Your task to perform on an android device: Search for Mexican restaurants on Maps Image 0: 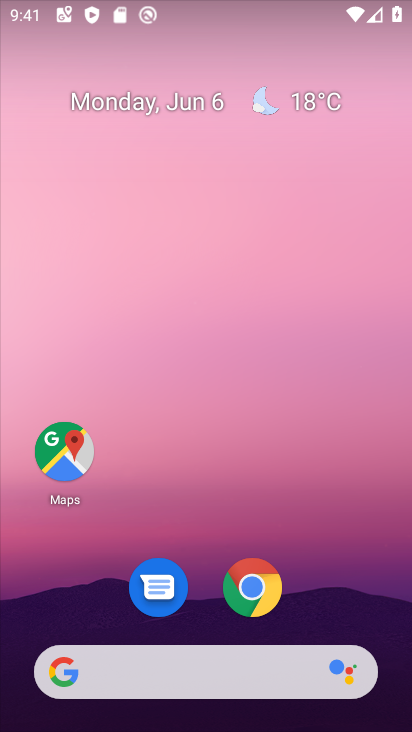
Step 0: click (48, 458)
Your task to perform on an android device: Search for Mexican restaurants on Maps Image 1: 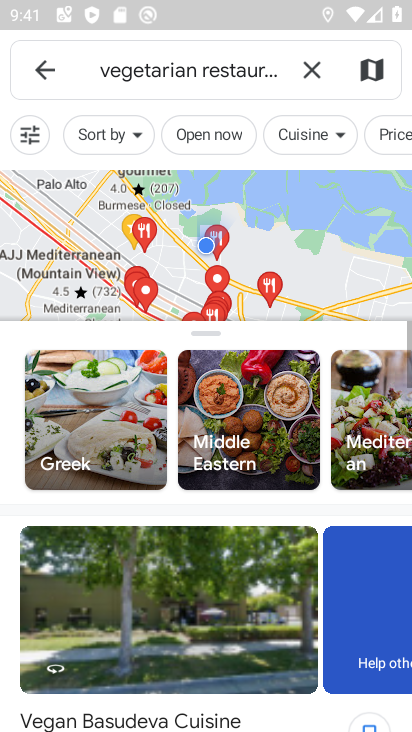
Step 1: click (235, 60)
Your task to perform on an android device: Search for Mexican restaurants on Maps Image 2: 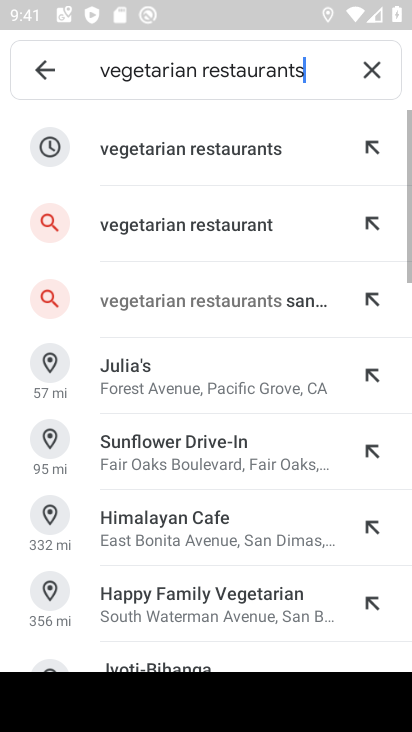
Step 2: click (372, 70)
Your task to perform on an android device: Search for Mexican restaurants on Maps Image 3: 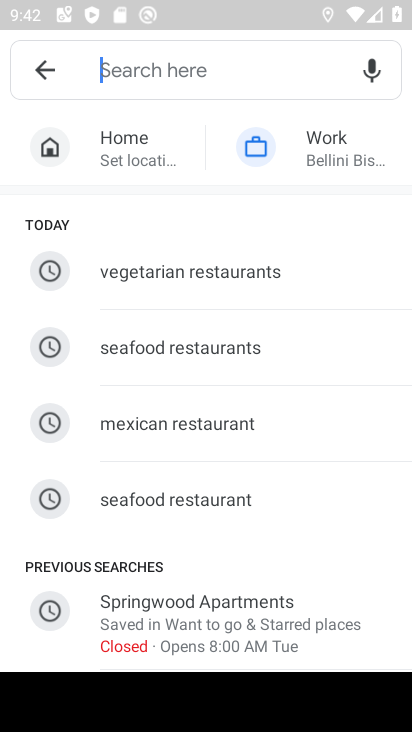
Step 3: type "Mexican restaurants"
Your task to perform on an android device: Search for Mexican restaurants on Maps Image 4: 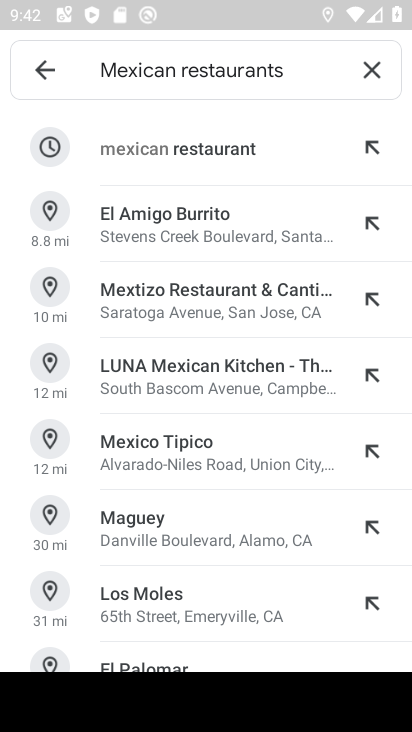
Step 4: press enter
Your task to perform on an android device: Search for Mexican restaurants on Maps Image 5: 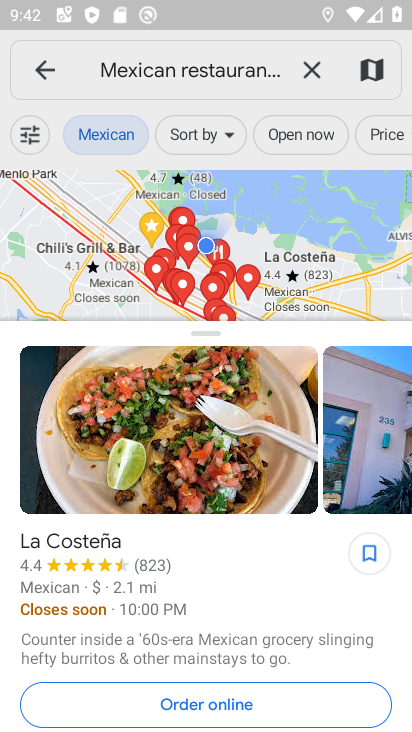
Step 5: task complete